Your task to perform on an android device: Search for hotels in Tokyo Image 0: 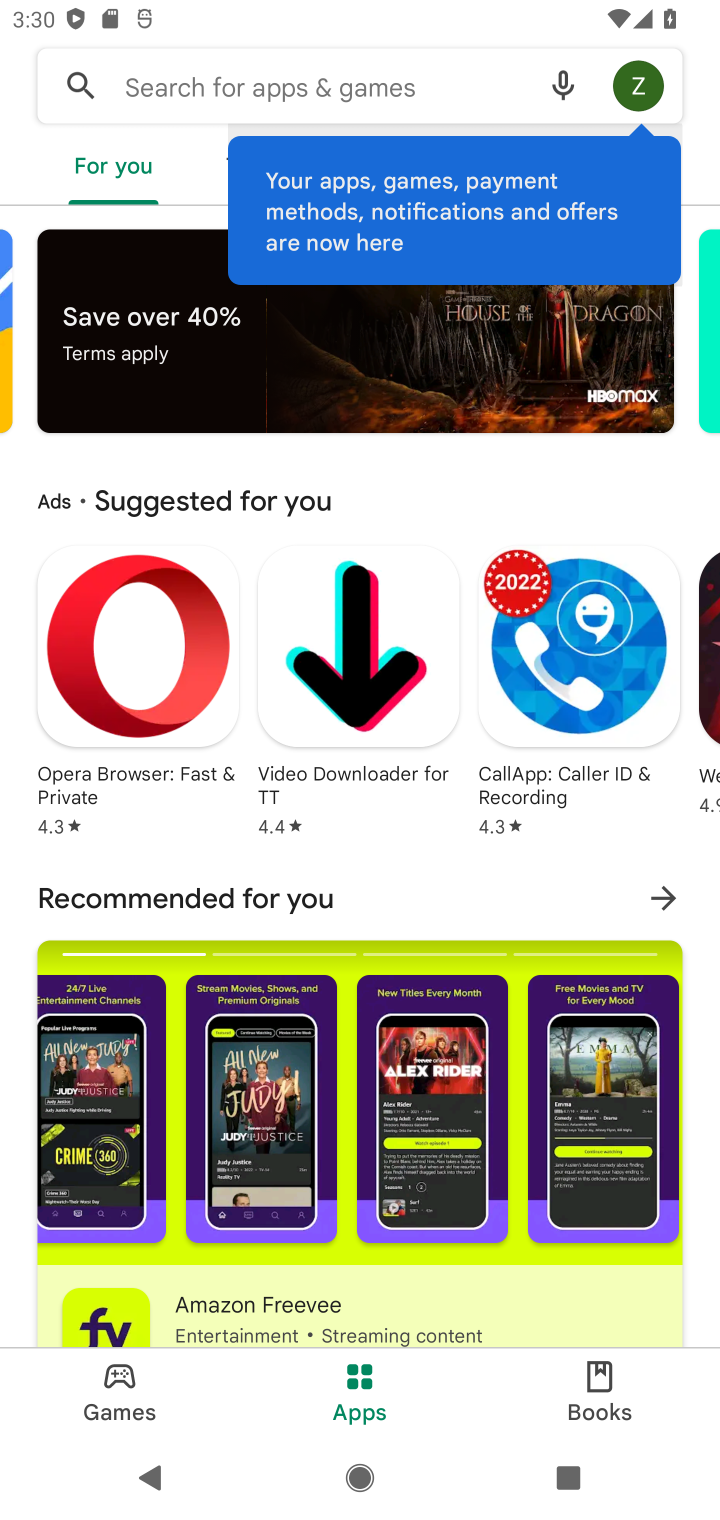
Step 0: press home button
Your task to perform on an android device: Search for hotels in Tokyo Image 1: 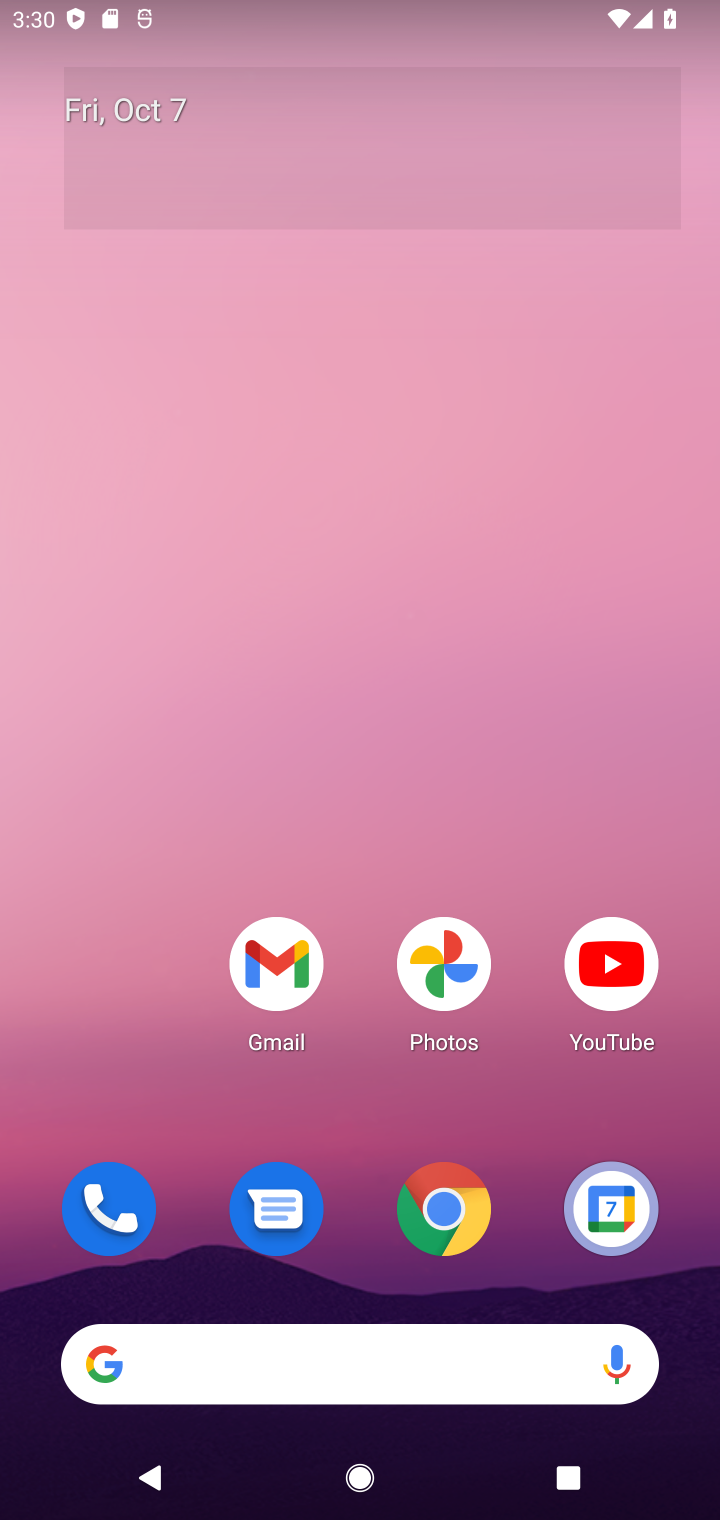
Step 1: click (292, 1369)
Your task to perform on an android device: Search for hotels in Tokyo Image 2: 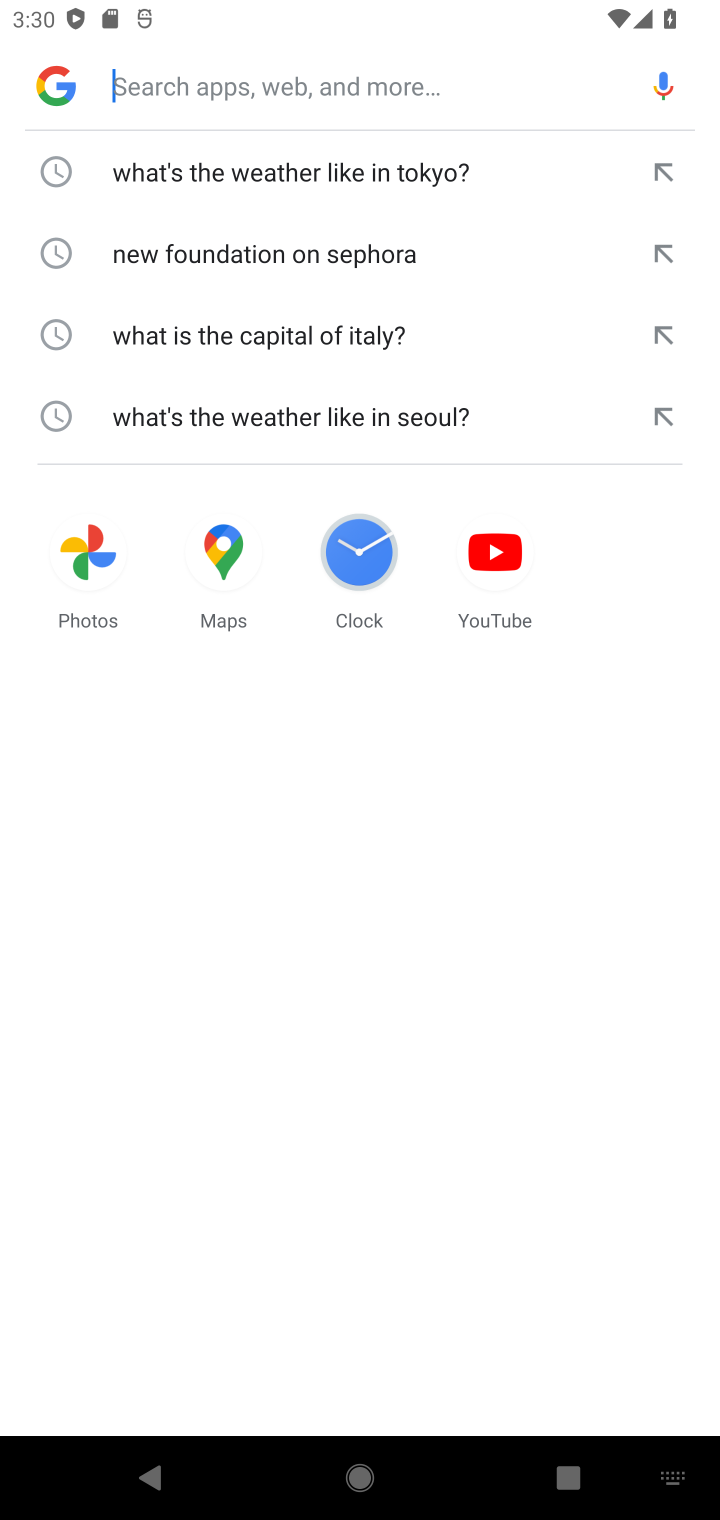
Step 2: type "hotels in tokyo "
Your task to perform on an android device: Search for hotels in Tokyo Image 3: 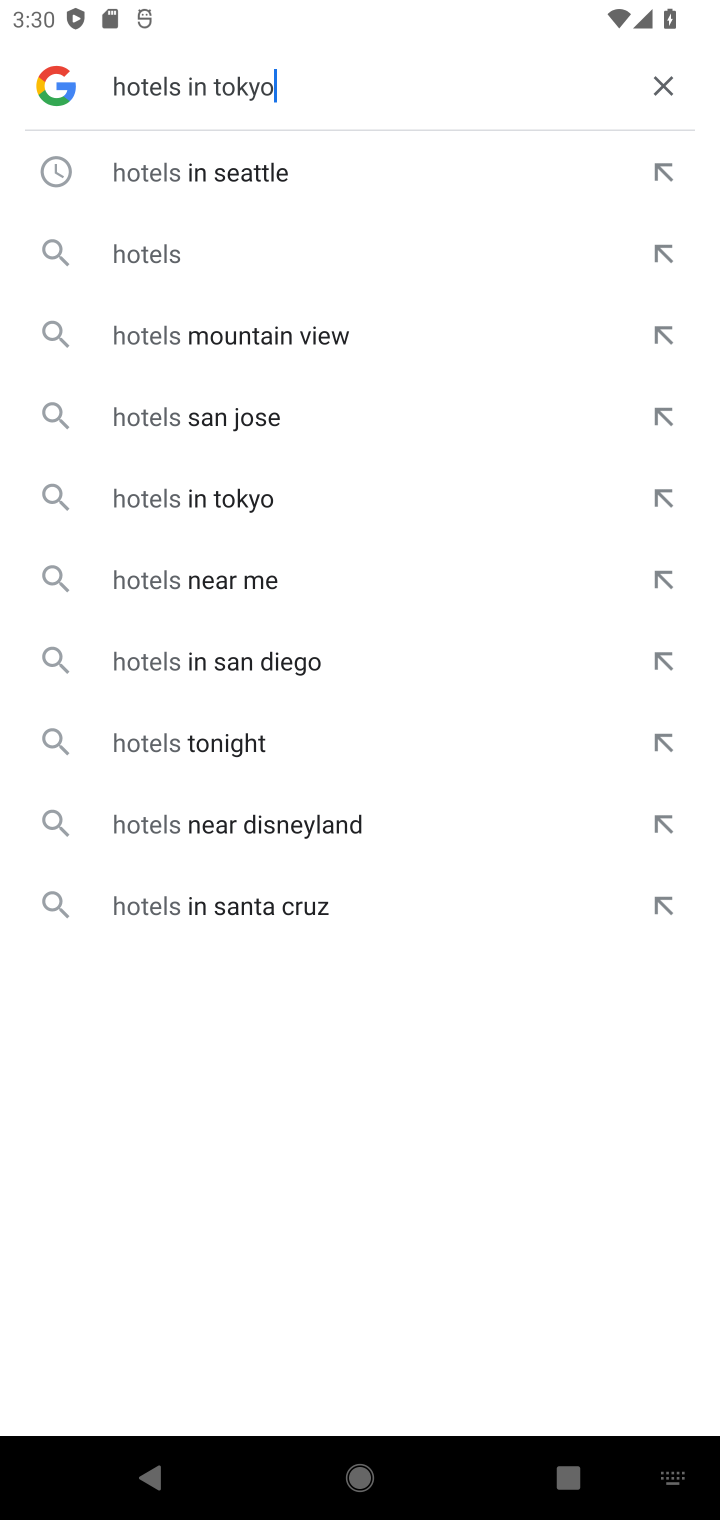
Step 3: press enter
Your task to perform on an android device: Search for hotels in Tokyo Image 4: 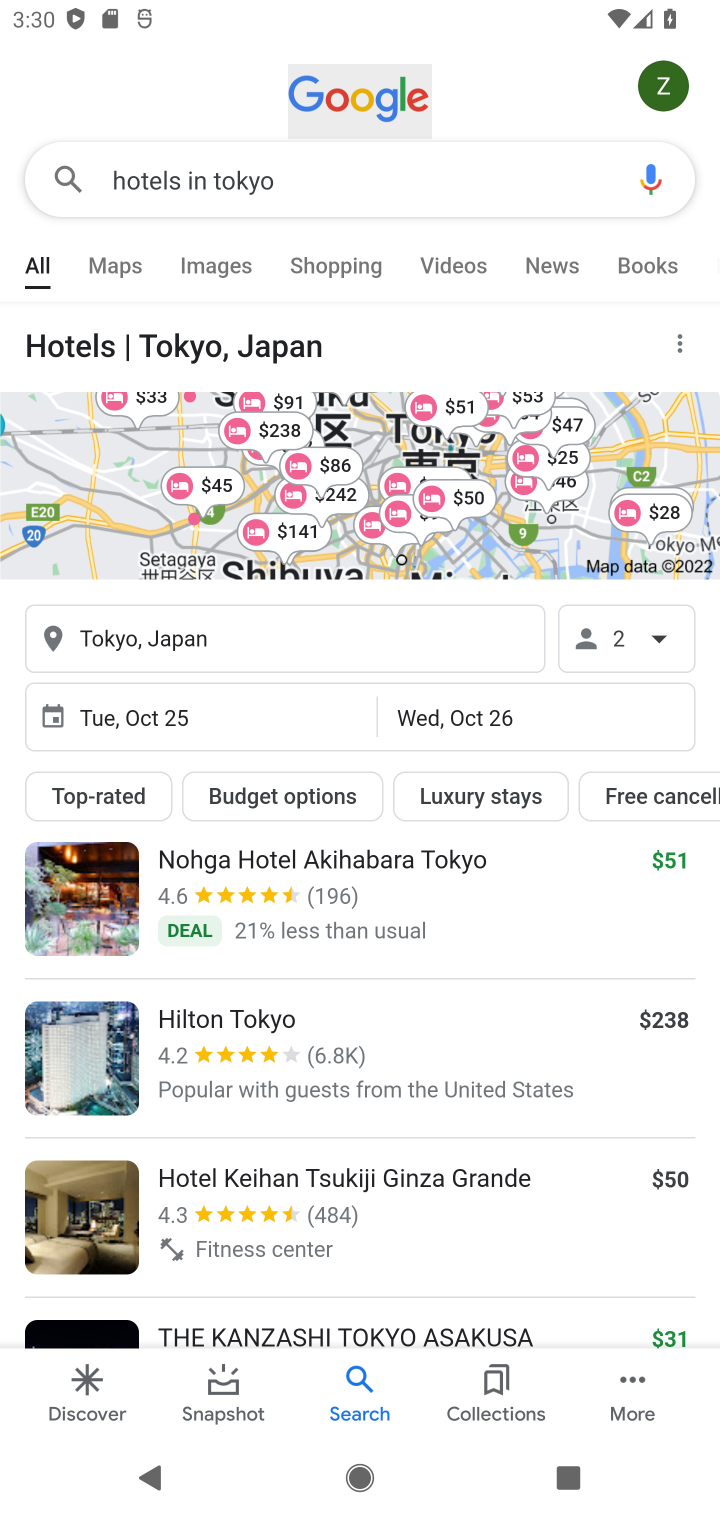
Step 4: task complete